Your task to perform on an android device: manage bookmarks in the chrome app Image 0: 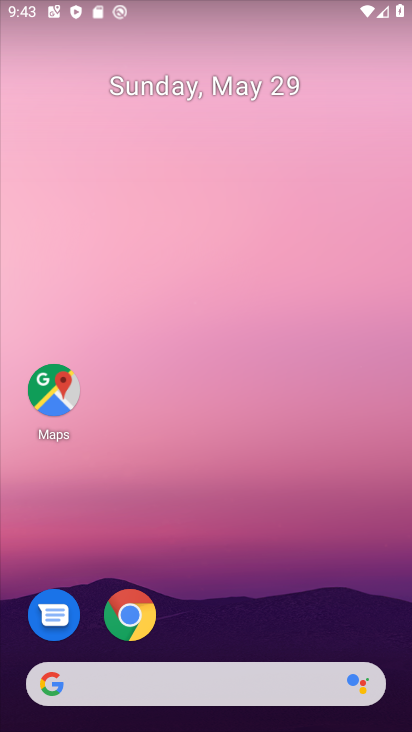
Step 0: click (134, 594)
Your task to perform on an android device: manage bookmarks in the chrome app Image 1: 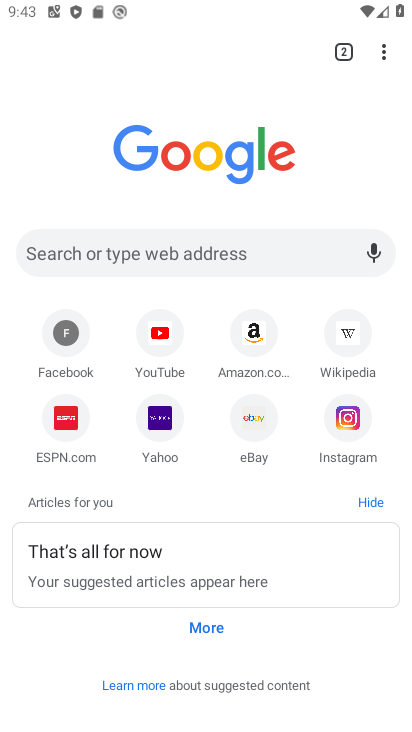
Step 1: click (382, 54)
Your task to perform on an android device: manage bookmarks in the chrome app Image 2: 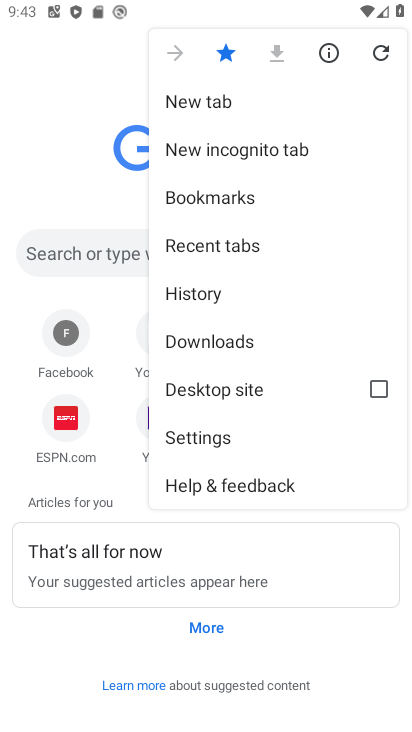
Step 2: click (195, 196)
Your task to perform on an android device: manage bookmarks in the chrome app Image 3: 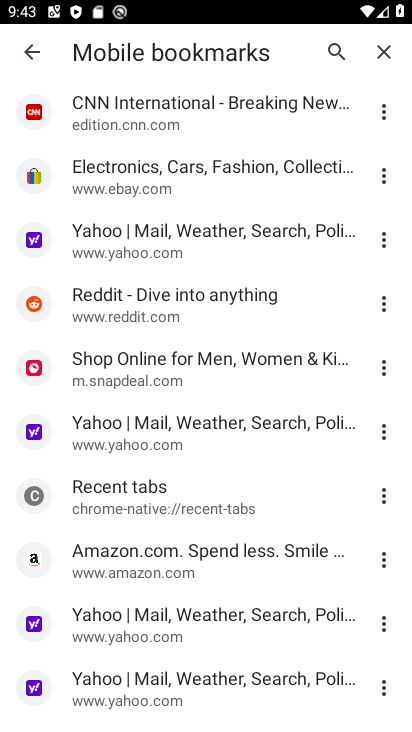
Step 3: click (380, 182)
Your task to perform on an android device: manage bookmarks in the chrome app Image 4: 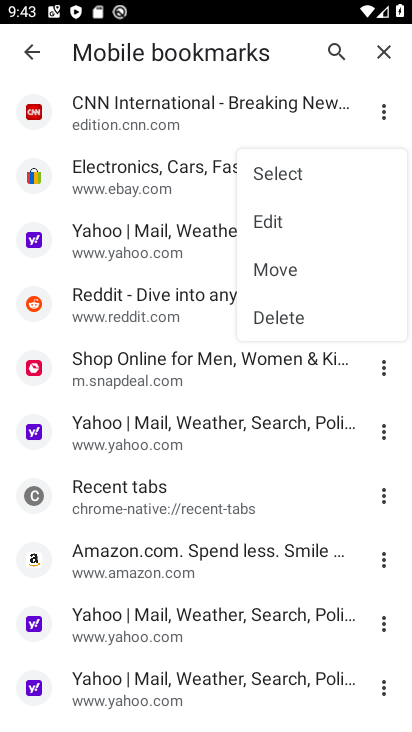
Step 4: click (284, 222)
Your task to perform on an android device: manage bookmarks in the chrome app Image 5: 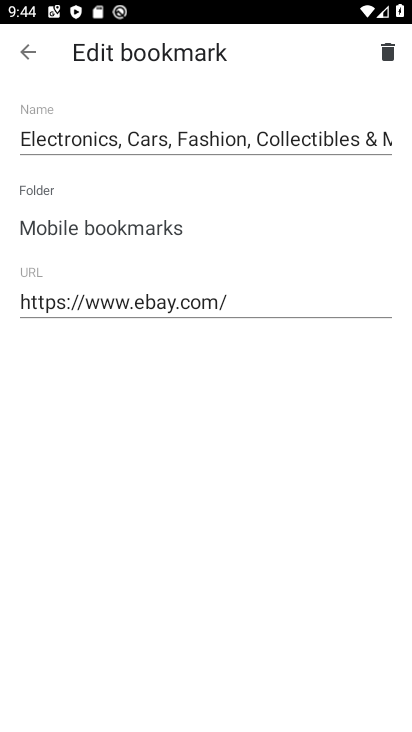
Step 5: task complete